Your task to perform on an android device: Open Chrome and go to the settings page Image 0: 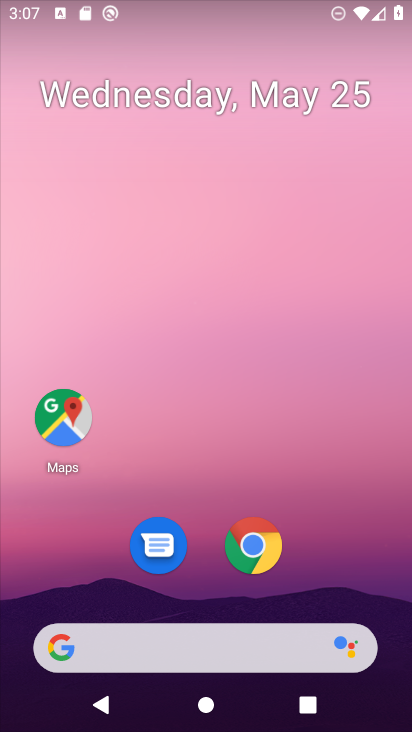
Step 0: click (269, 552)
Your task to perform on an android device: Open Chrome and go to the settings page Image 1: 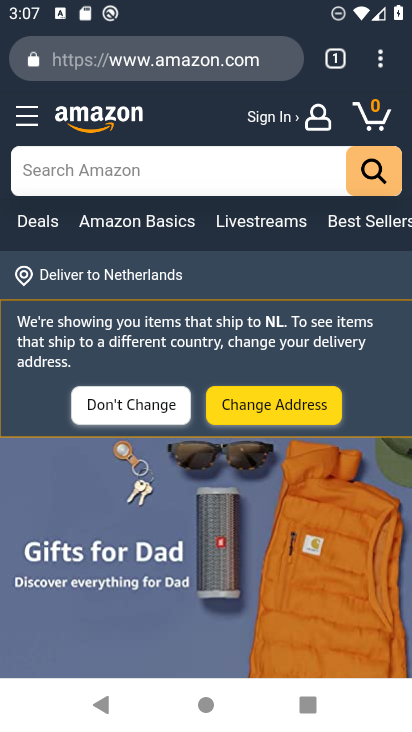
Step 1: click (383, 69)
Your task to perform on an android device: Open Chrome and go to the settings page Image 2: 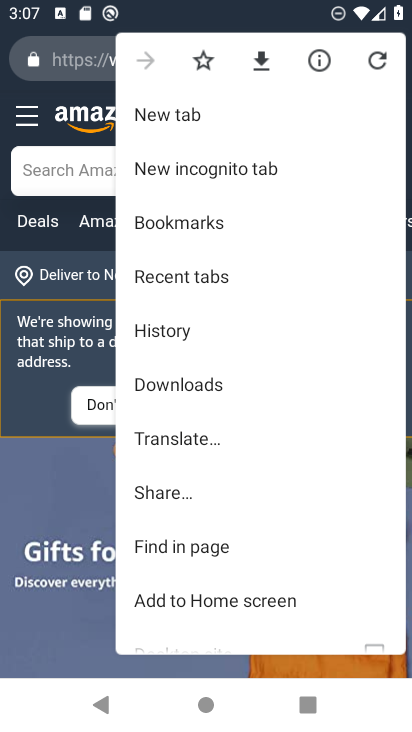
Step 2: drag from (261, 553) to (266, 279)
Your task to perform on an android device: Open Chrome and go to the settings page Image 3: 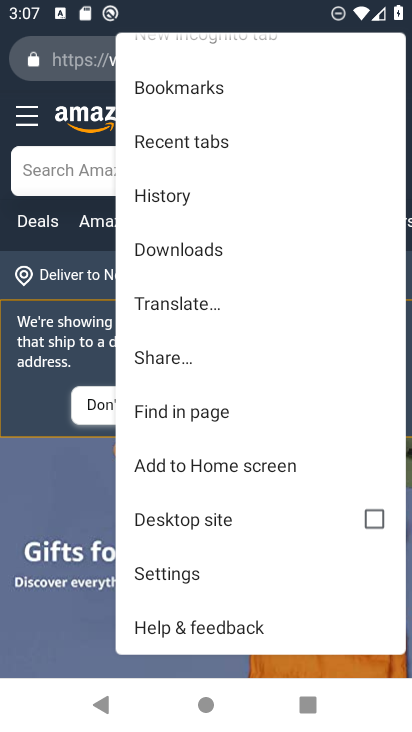
Step 3: click (232, 574)
Your task to perform on an android device: Open Chrome and go to the settings page Image 4: 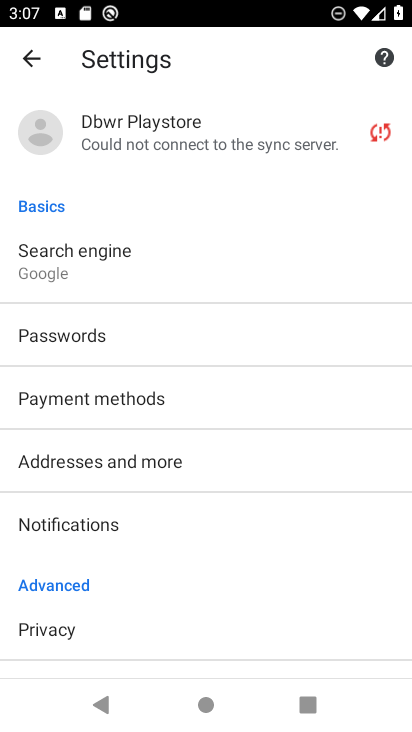
Step 4: task complete